Your task to perform on an android device: Is it going to rain this weekend? Image 0: 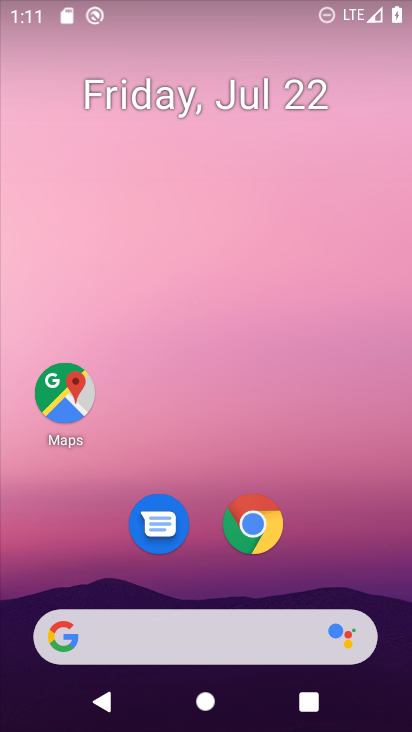
Step 0: click (249, 634)
Your task to perform on an android device: Is it going to rain this weekend? Image 1: 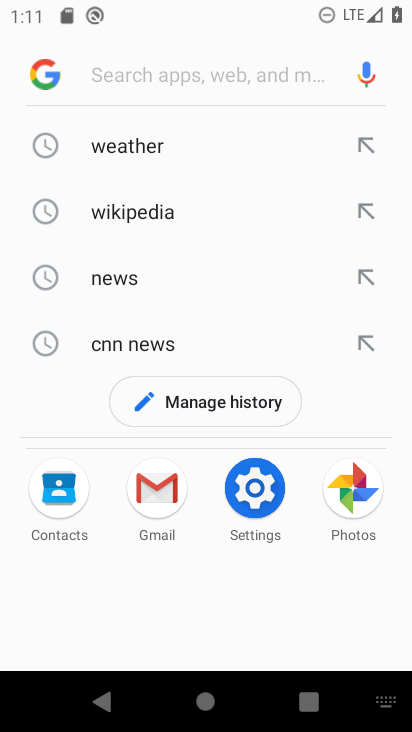
Step 1: click (151, 147)
Your task to perform on an android device: Is it going to rain this weekend? Image 2: 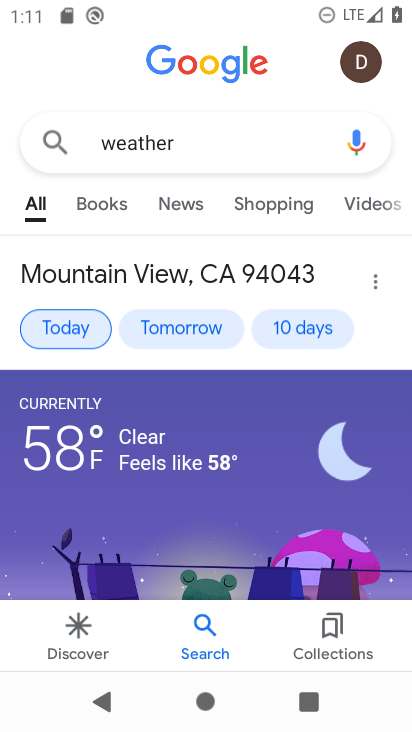
Step 2: click (310, 327)
Your task to perform on an android device: Is it going to rain this weekend? Image 3: 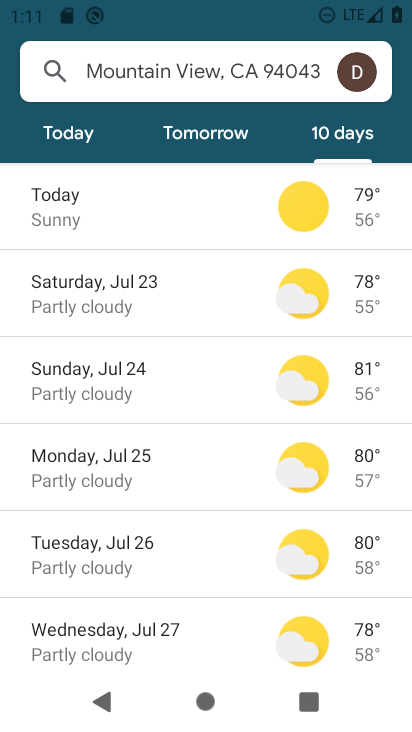
Step 3: click (159, 294)
Your task to perform on an android device: Is it going to rain this weekend? Image 4: 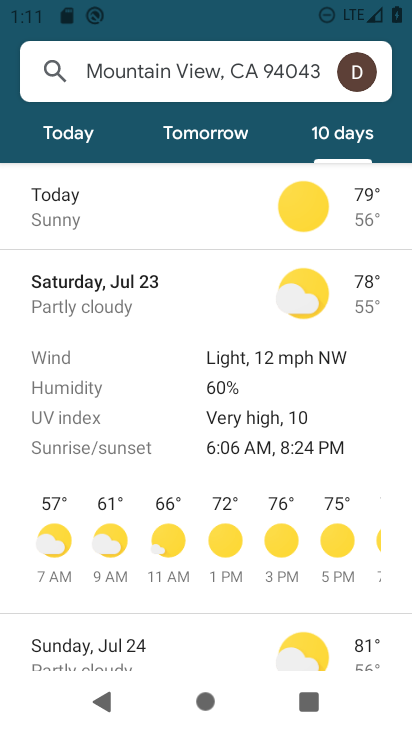
Step 4: task complete